Your task to perform on an android device: Open Google Chrome Image 0: 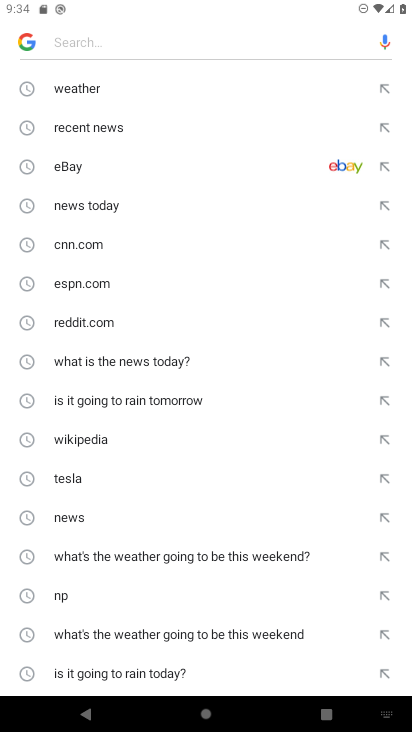
Step 0: press home button
Your task to perform on an android device: Open Google Chrome Image 1: 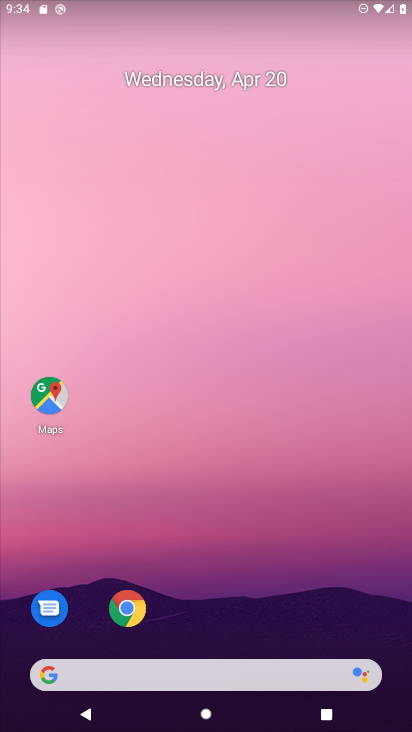
Step 1: click (136, 614)
Your task to perform on an android device: Open Google Chrome Image 2: 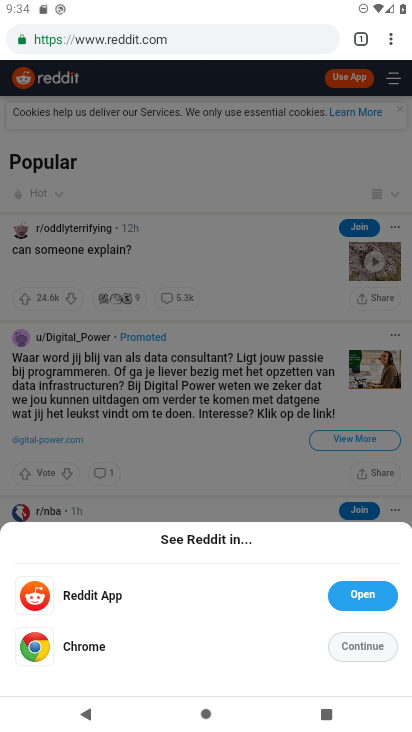
Step 2: click (353, 648)
Your task to perform on an android device: Open Google Chrome Image 3: 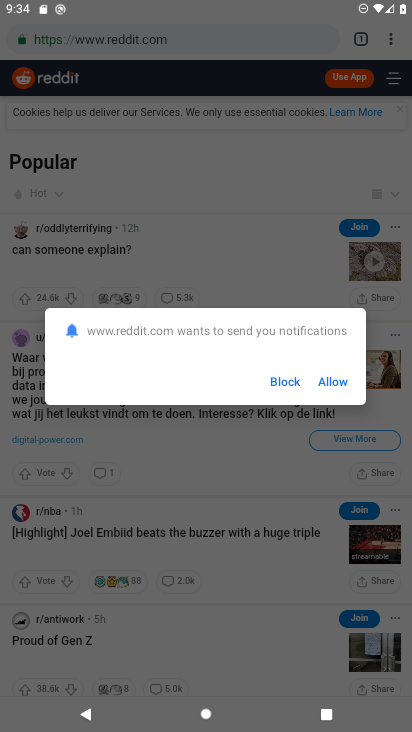
Step 3: task complete